Your task to perform on an android device: Open Amazon Image 0: 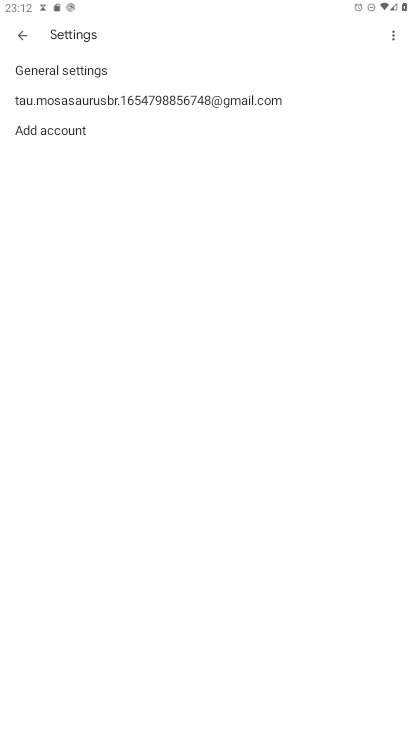
Step 0: press home button
Your task to perform on an android device: Open Amazon Image 1: 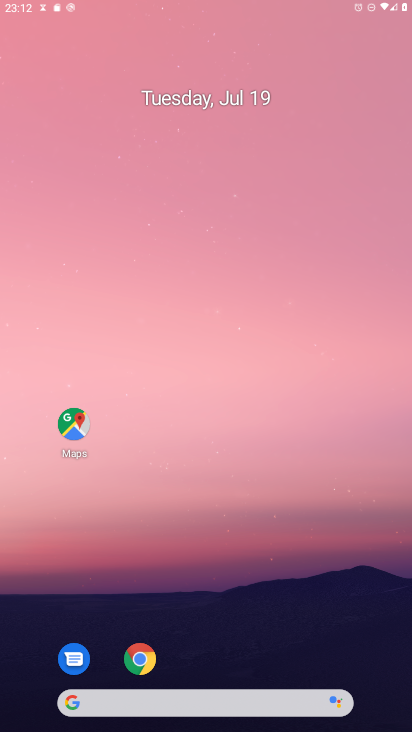
Step 1: drag from (224, 582) to (237, 180)
Your task to perform on an android device: Open Amazon Image 2: 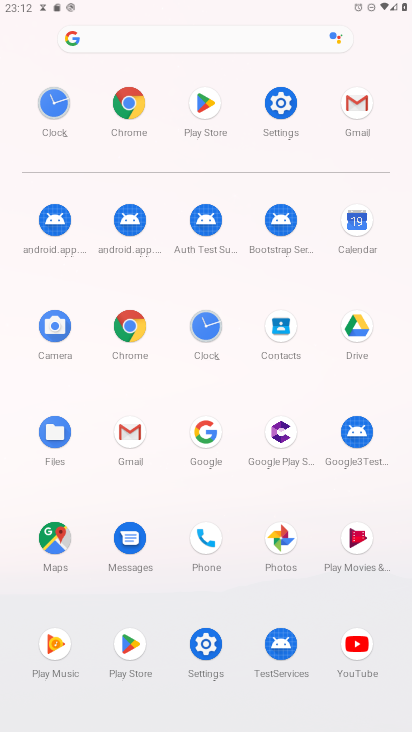
Step 2: click (121, 100)
Your task to perform on an android device: Open Amazon Image 3: 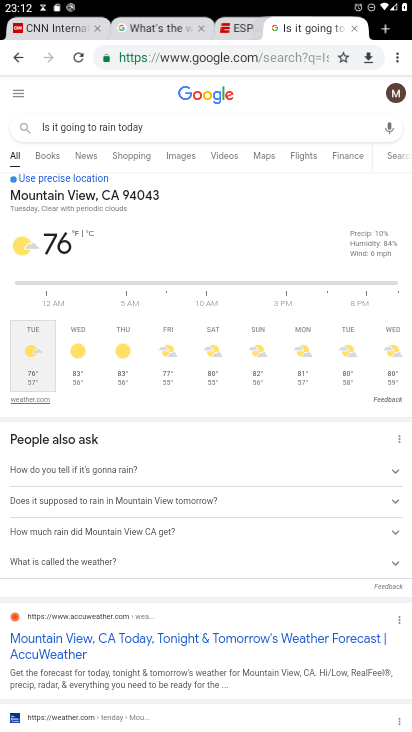
Step 3: click (384, 25)
Your task to perform on an android device: Open Amazon Image 4: 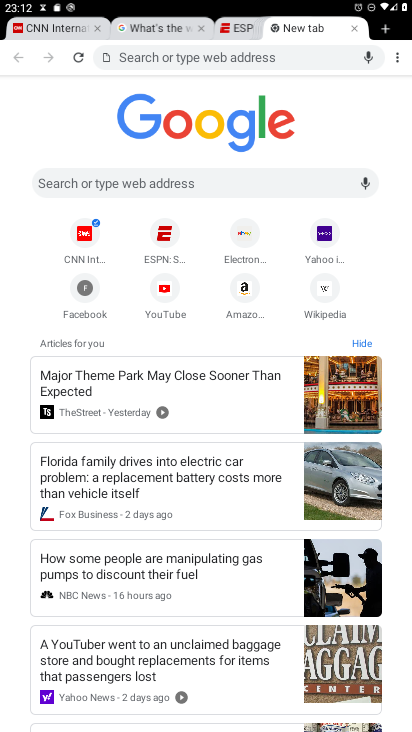
Step 4: click (249, 283)
Your task to perform on an android device: Open Amazon Image 5: 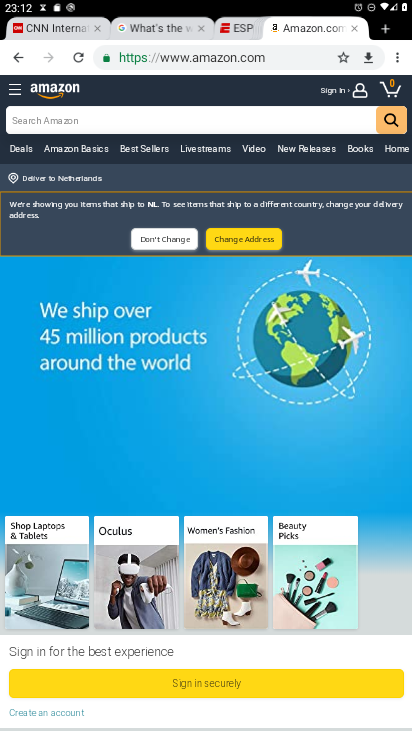
Step 5: task complete